Your task to perform on an android device: set default search engine in the chrome app Image 0: 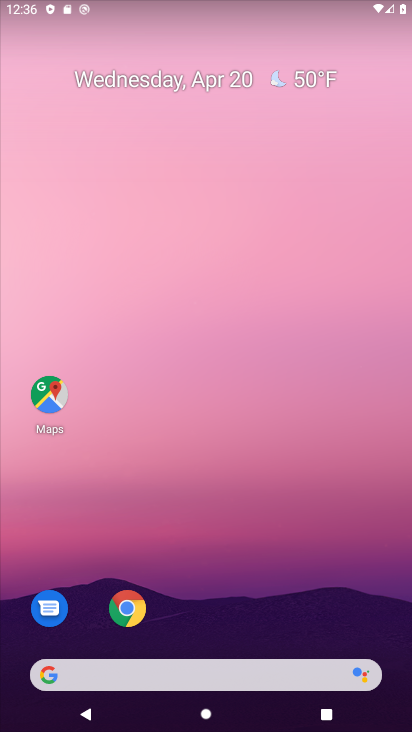
Step 0: click (140, 607)
Your task to perform on an android device: set default search engine in the chrome app Image 1: 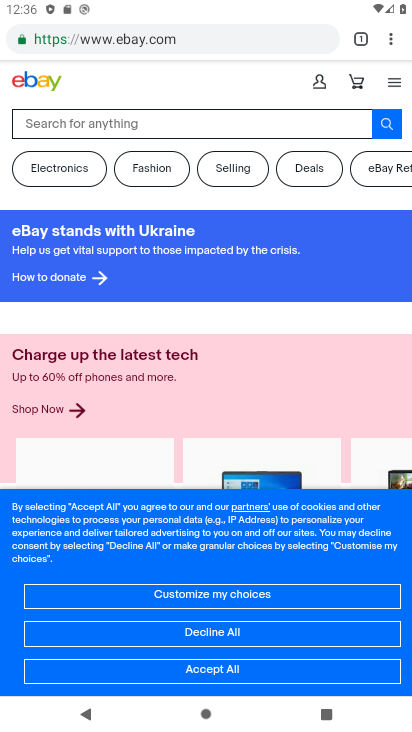
Step 1: click (390, 35)
Your task to perform on an android device: set default search engine in the chrome app Image 2: 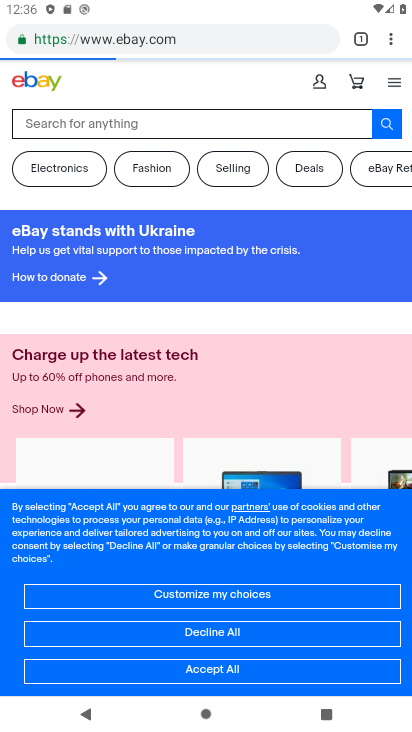
Step 2: click (390, 35)
Your task to perform on an android device: set default search engine in the chrome app Image 3: 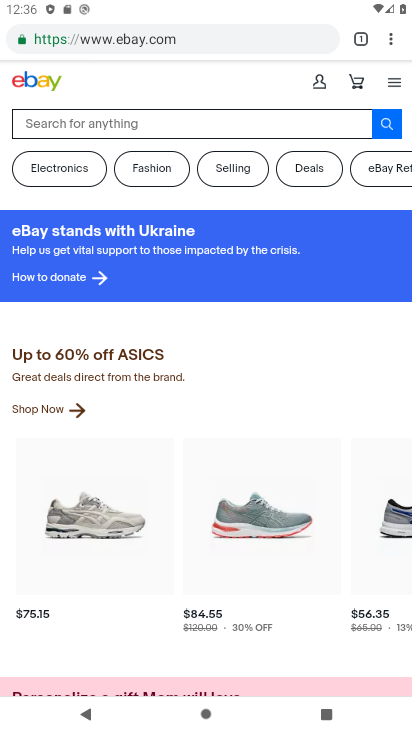
Step 3: click (388, 45)
Your task to perform on an android device: set default search engine in the chrome app Image 4: 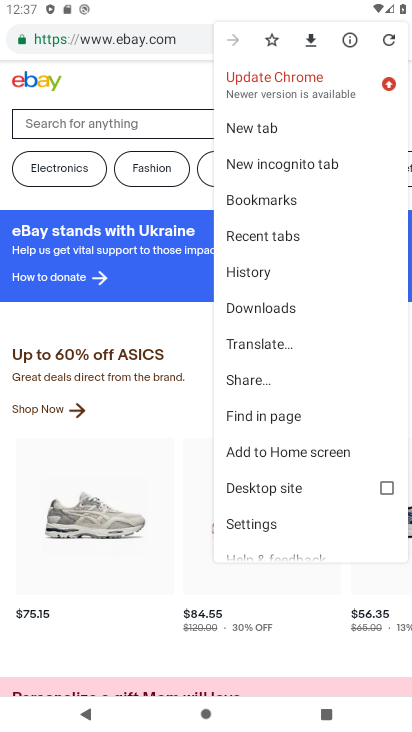
Step 4: click (285, 520)
Your task to perform on an android device: set default search engine in the chrome app Image 5: 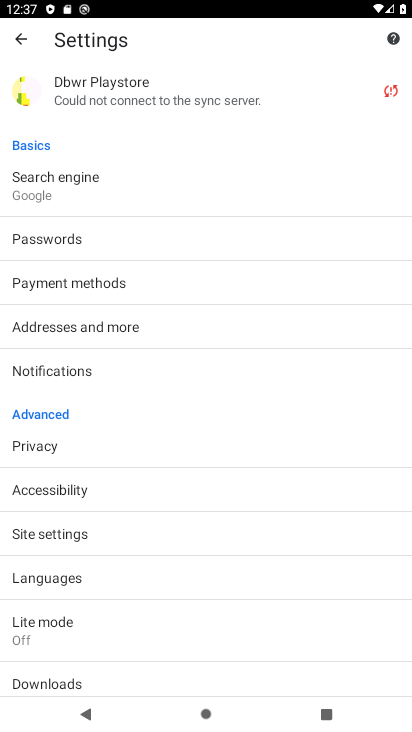
Step 5: click (92, 199)
Your task to perform on an android device: set default search engine in the chrome app Image 6: 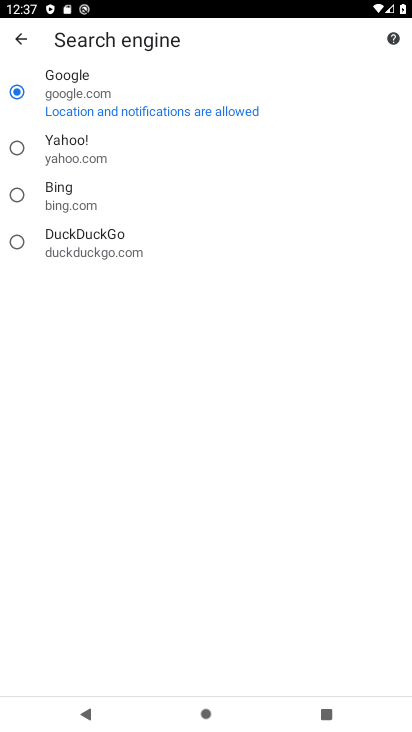
Step 6: click (67, 199)
Your task to perform on an android device: set default search engine in the chrome app Image 7: 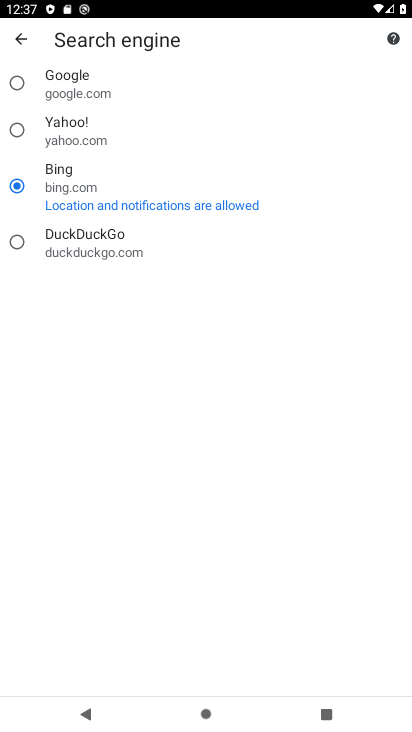
Step 7: task complete